Your task to perform on an android device: find snoozed emails in the gmail app Image 0: 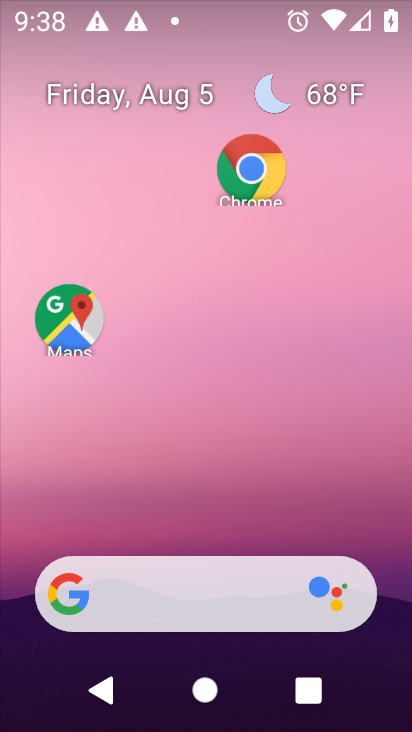
Step 0: drag from (165, 482) to (116, 125)
Your task to perform on an android device: find snoozed emails in the gmail app Image 1: 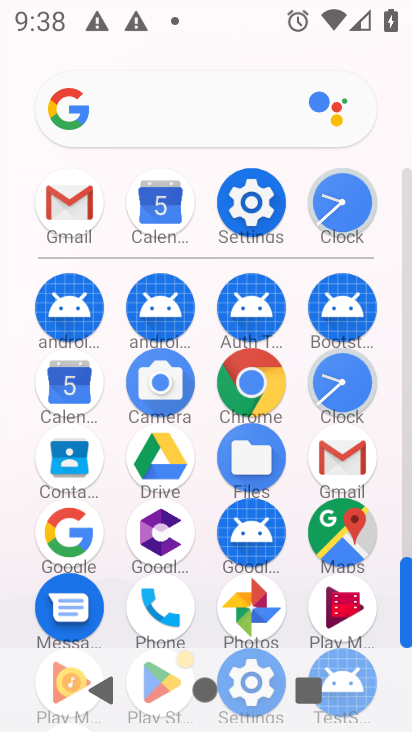
Step 1: click (70, 238)
Your task to perform on an android device: find snoozed emails in the gmail app Image 2: 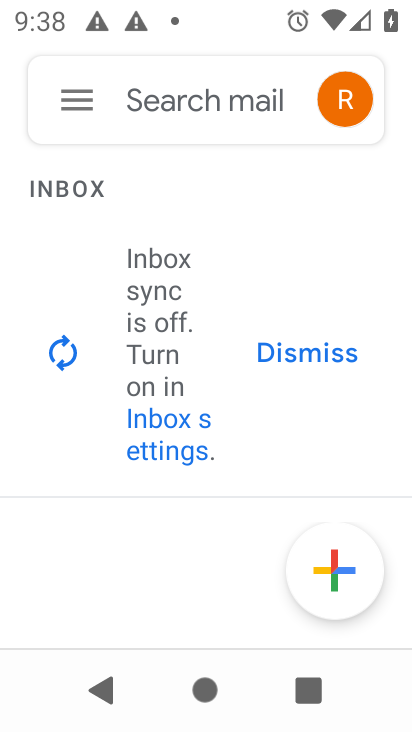
Step 2: click (133, 107)
Your task to perform on an android device: find snoozed emails in the gmail app Image 3: 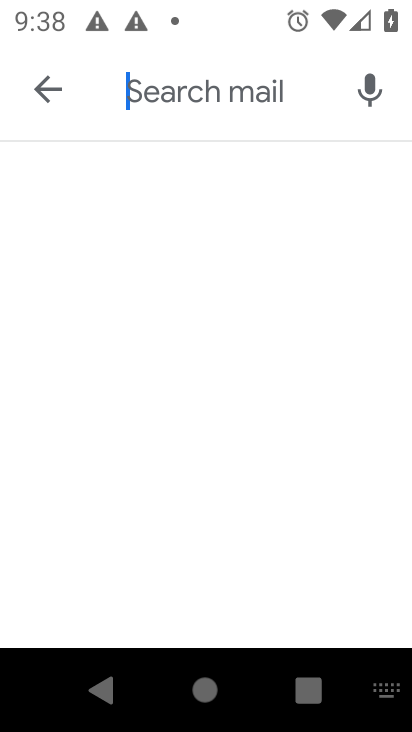
Step 3: click (40, 87)
Your task to perform on an android device: find snoozed emails in the gmail app Image 4: 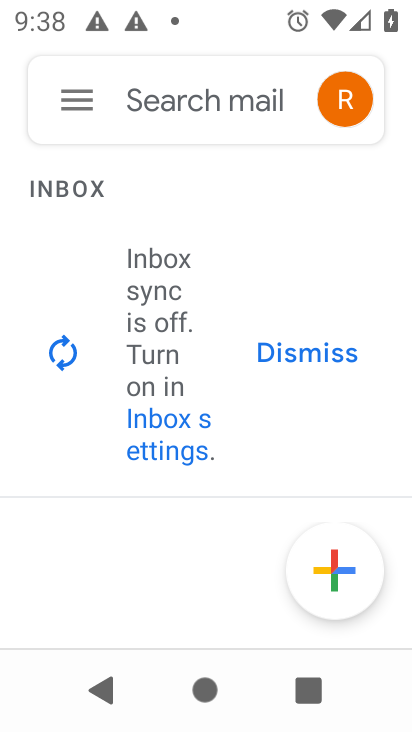
Step 4: click (68, 99)
Your task to perform on an android device: find snoozed emails in the gmail app Image 5: 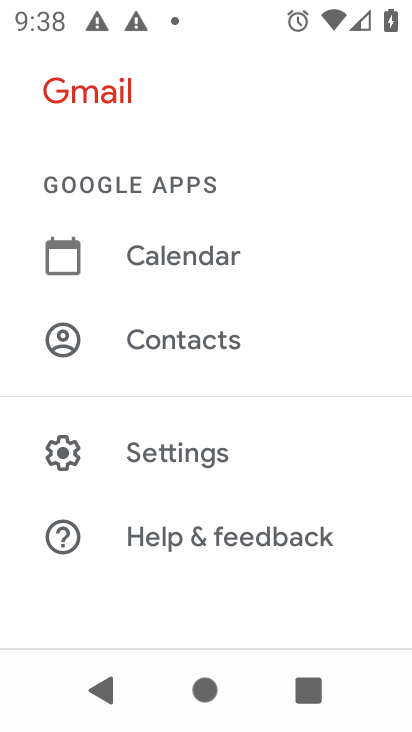
Step 5: task complete